Your task to perform on an android device: Open a new incognito tab in the chrome app Image 0: 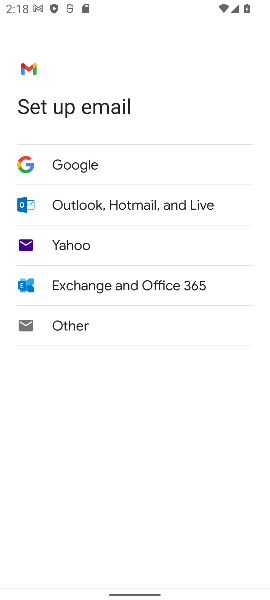
Step 0: press home button
Your task to perform on an android device: Open a new incognito tab in the chrome app Image 1: 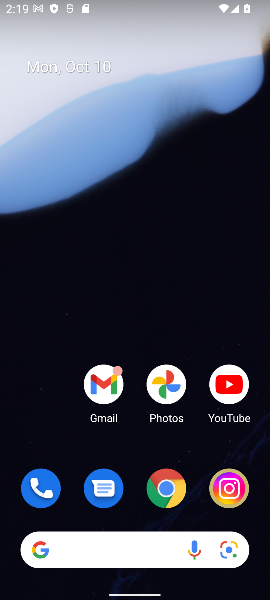
Step 1: click (160, 490)
Your task to perform on an android device: Open a new incognito tab in the chrome app Image 2: 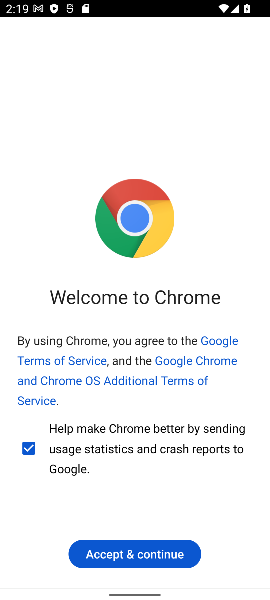
Step 2: click (119, 544)
Your task to perform on an android device: Open a new incognito tab in the chrome app Image 3: 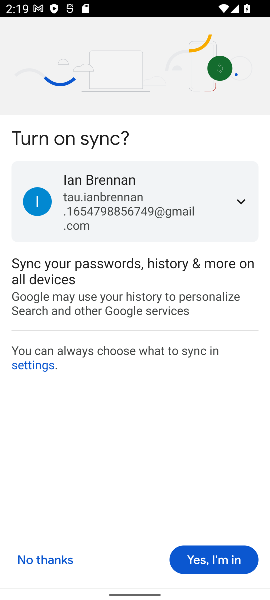
Step 3: click (225, 565)
Your task to perform on an android device: Open a new incognito tab in the chrome app Image 4: 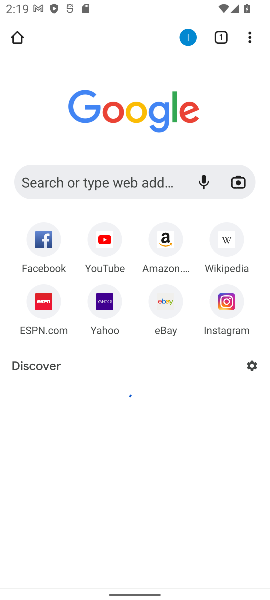
Step 4: task complete